Your task to perform on an android device: Open calendar and show me the fourth week of next month Image 0: 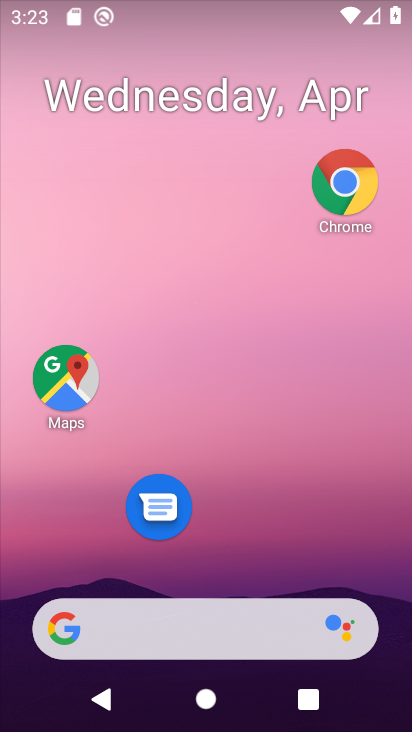
Step 0: drag from (197, 501) to (208, 39)
Your task to perform on an android device: Open calendar and show me the fourth week of next month Image 1: 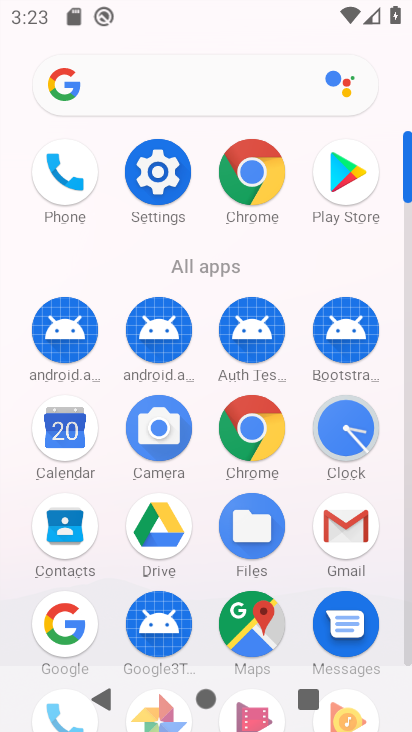
Step 1: click (64, 437)
Your task to perform on an android device: Open calendar and show me the fourth week of next month Image 2: 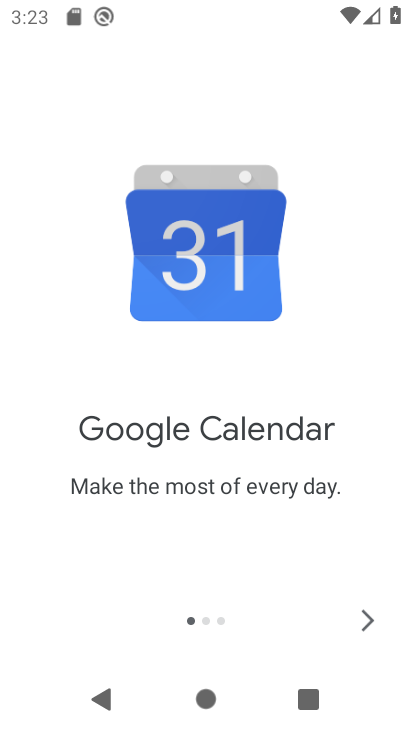
Step 2: click (369, 617)
Your task to perform on an android device: Open calendar and show me the fourth week of next month Image 3: 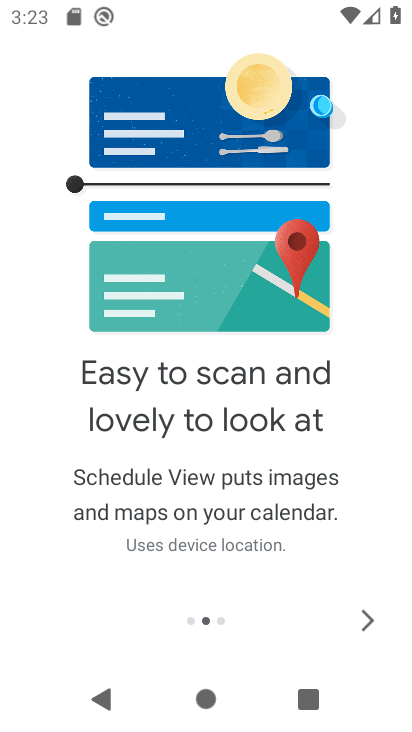
Step 3: click (370, 616)
Your task to perform on an android device: Open calendar and show me the fourth week of next month Image 4: 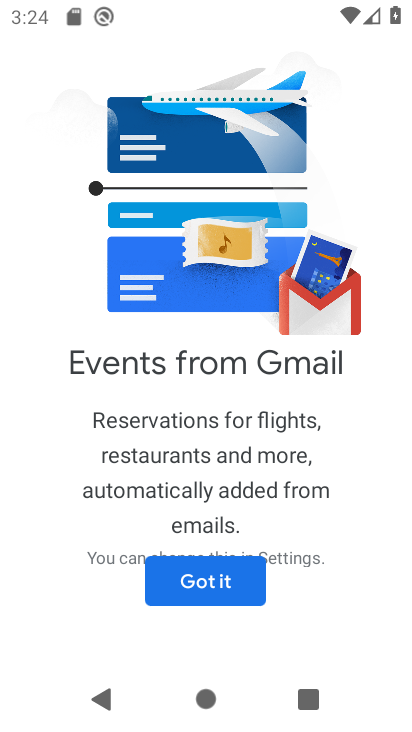
Step 4: click (229, 577)
Your task to perform on an android device: Open calendar and show me the fourth week of next month Image 5: 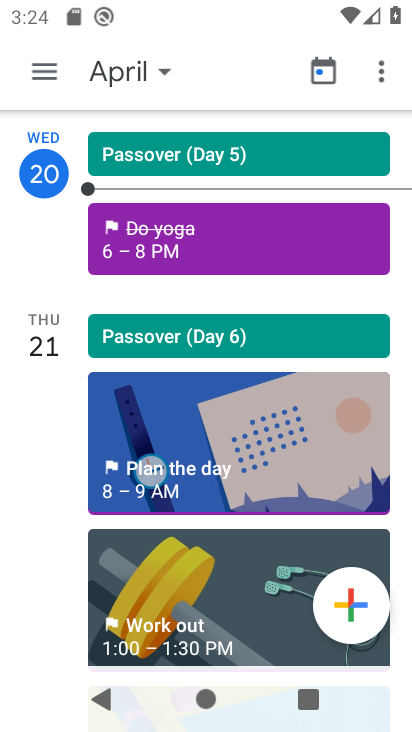
Step 5: click (48, 77)
Your task to perform on an android device: Open calendar and show me the fourth week of next month Image 6: 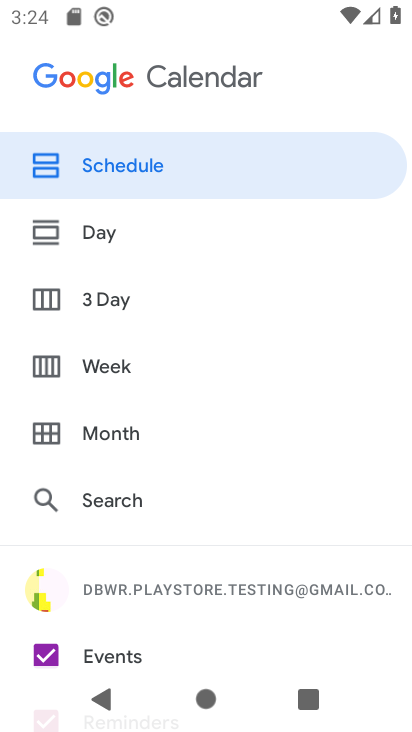
Step 6: click (115, 363)
Your task to perform on an android device: Open calendar and show me the fourth week of next month Image 7: 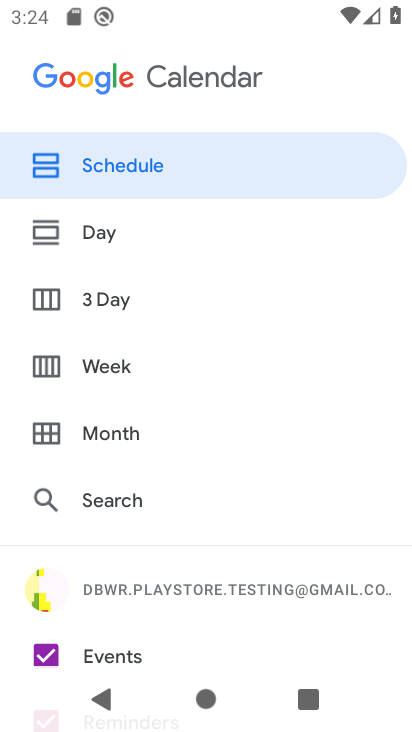
Step 7: click (103, 367)
Your task to perform on an android device: Open calendar and show me the fourth week of next month Image 8: 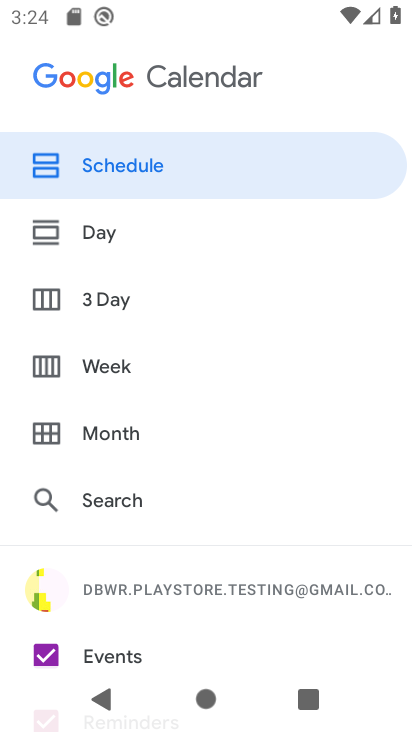
Step 8: click (107, 365)
Your task to perform on an android device: Open calendar and show me the fourth week of next month Image 9: 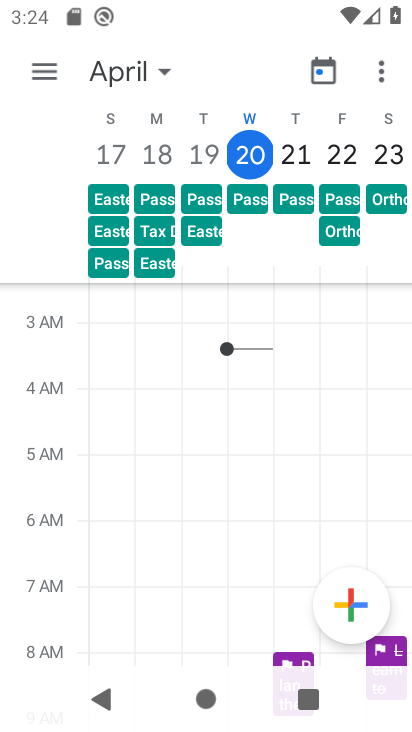
Step 9: click (113, 65)
Your task to perform on an android device: Open calendar and show me the fourth week of next month Image 10: 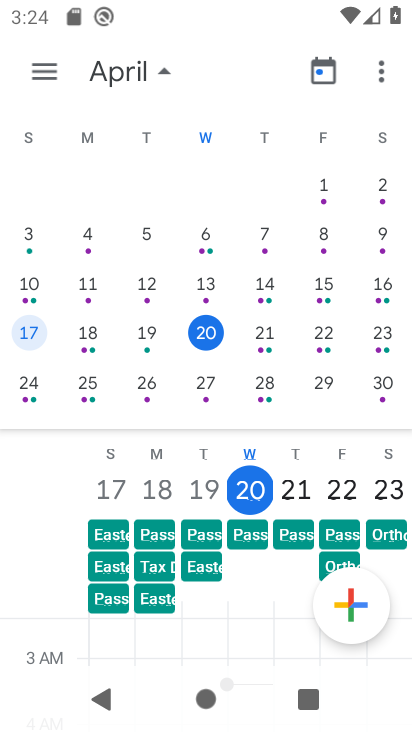
Step 10: drag from (331, 262) to (1, 232)
Your task to perform on an android device: Open calendar and show me the fourth week of next month Image 11: 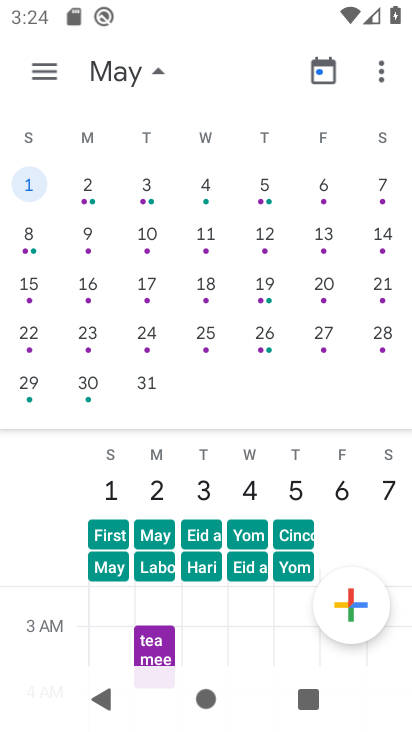
Step 11: click (44, 68)
Your task to perform on an android device: Open calendar and show me the fourth week of next month Image 12: 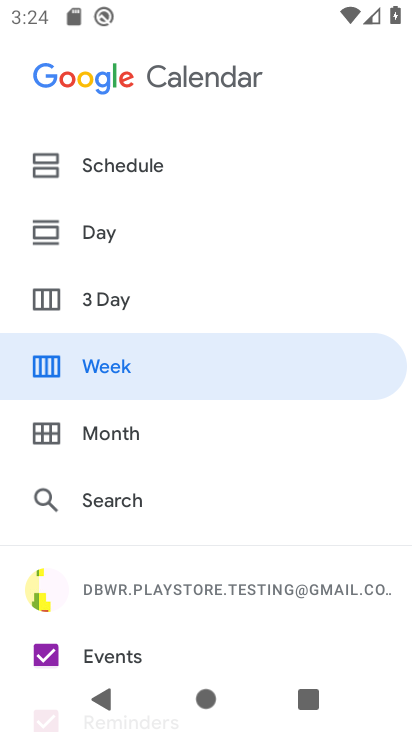
Step 12: click (114, 374)
Your task to perform on an android device: Open calendar and show me the fourth week of next month Image 13: 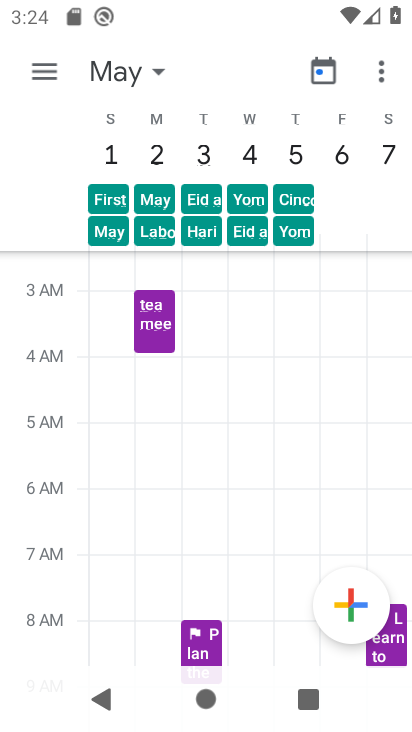
Step 13: task complete